Your task to perform on an android device: check storage Image 0: 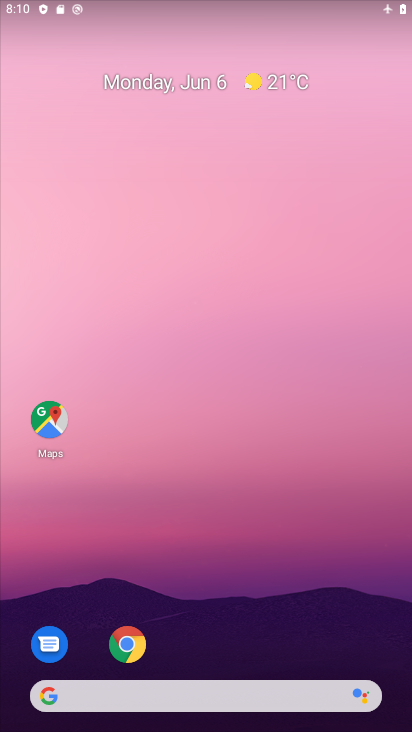
Step 0: drag from (208, 656) to (277, 0)
Your task to perform on an android device: check storage Image 1: 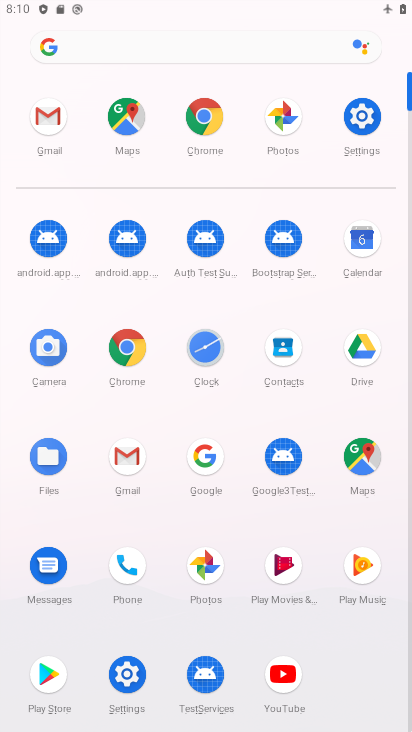
Step 1: click (365, 115)
Your task to perform on an android device: check storage Image 2: 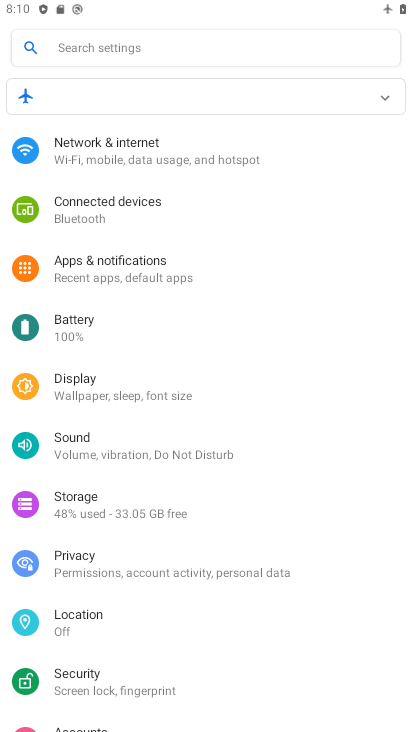
Step 2: click (100, 515)
Your task to perform on an android device: check storage Image 3: 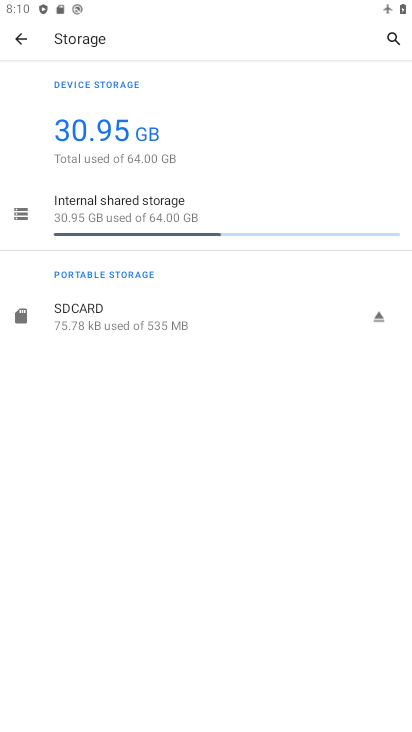
Step 3: task complete